Your task to perform on an android device: Open accessibility settings Image 0: 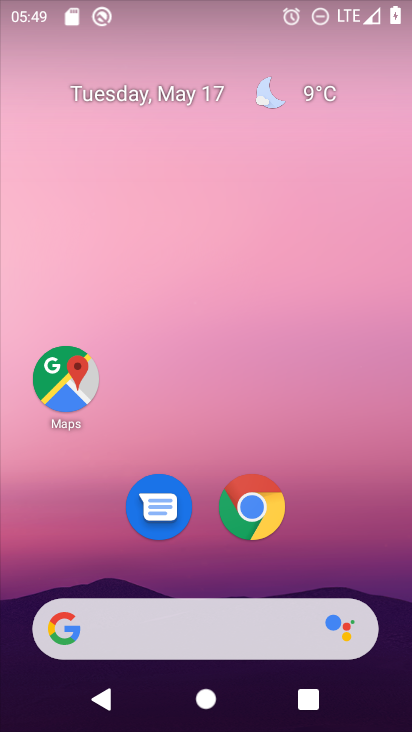
Step 0: drag from (315, 530) to (240, 14)
Your task to perform on an android device: Open accessibility settings Image 1: 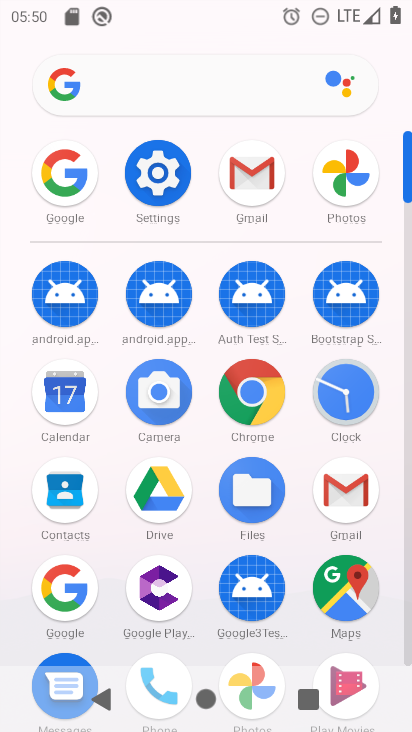
Step 1: click (167, 181)
Your task to perform on an android device: Open accessibility settings Image 2: 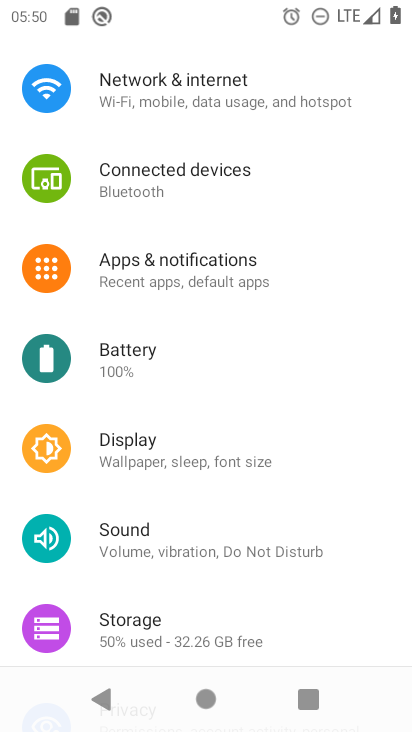
Step 2: drag from (248, 594) to (161, 111)
Your task to perform on an android device: Open accessibility settings Image 3: 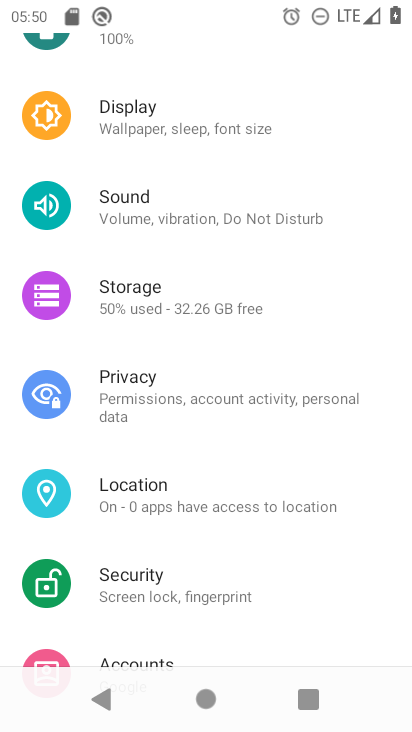
Step 3: drag from (224, 518) to (205, 109)
Your task to perform on an android device: Open accessibility settings Image 4: 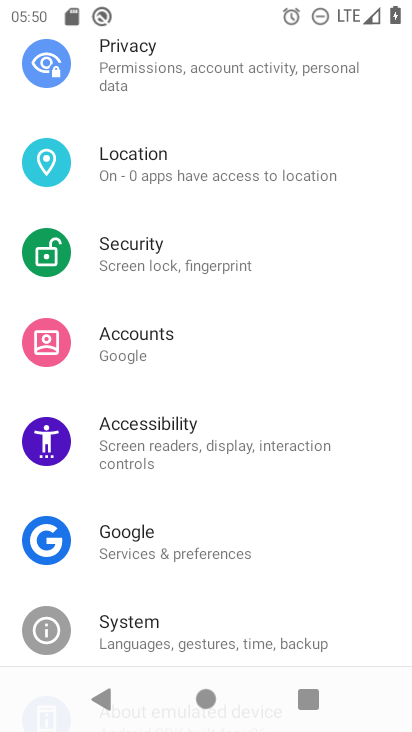
Step 4: click (191, 439)
Your task to perform on an android device: Open accessibility settings Image 5: 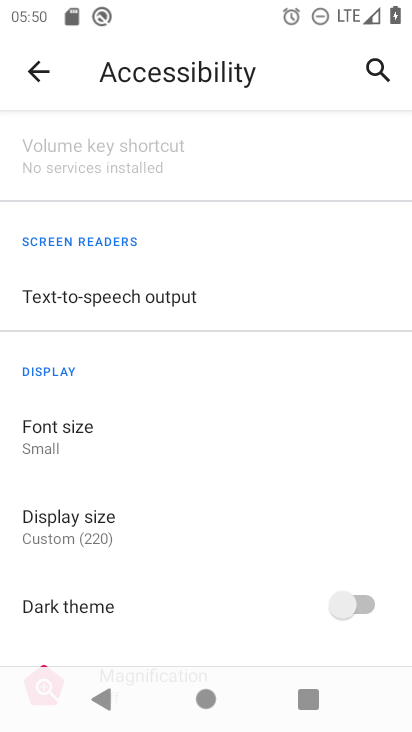
Step 5: task complete